Your task to perform on an android device: Go to notification settings Image 0: 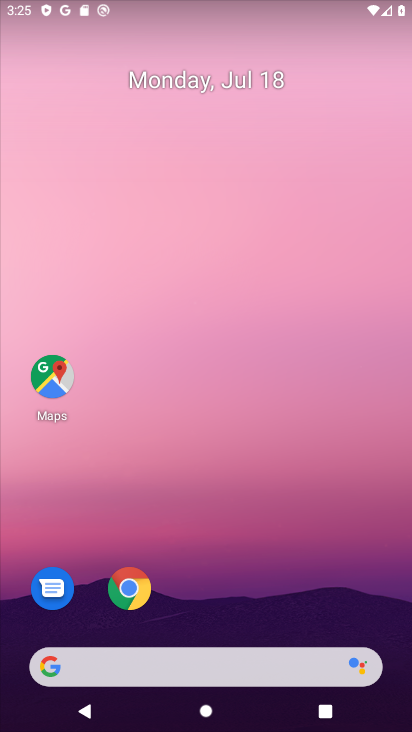
Step 0: drag from (218, 615) to (249, 5)
Your task to perform on an android device: Go to notification settings Image 1: 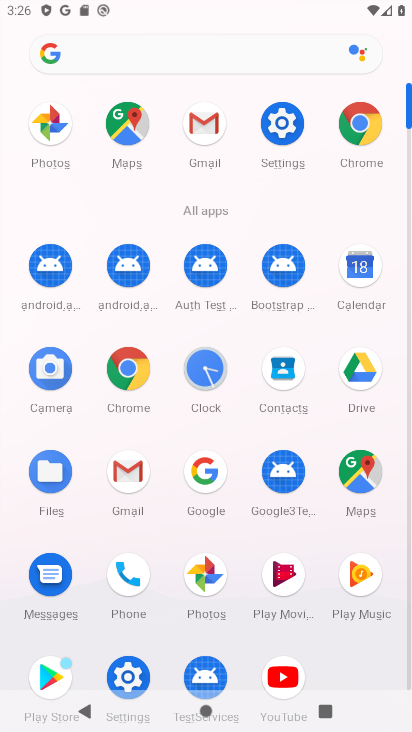
Step 1: click (280, 122)
Your task to perform on an android device: Go to notification settings Image 2: 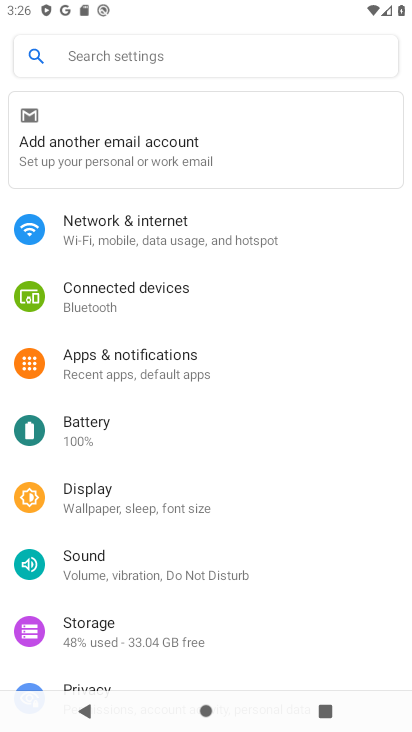
Step 2: click (208, 363)
Your task to perform on an android device: Go to notification settings Image 3: 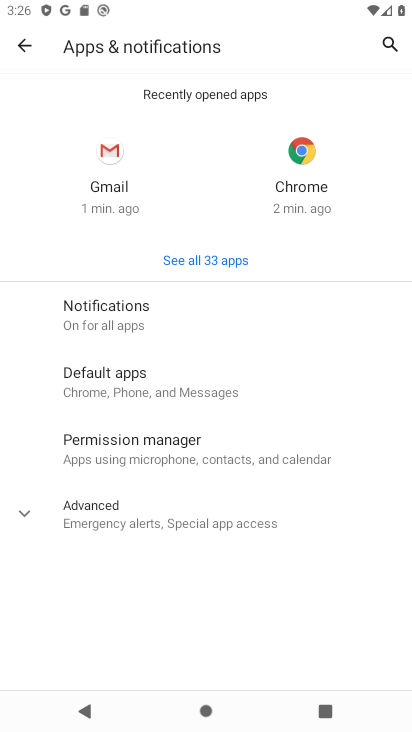
Step 3: click (172, 308)
Your task to perform on an android device: Go to notification settings Image 4: 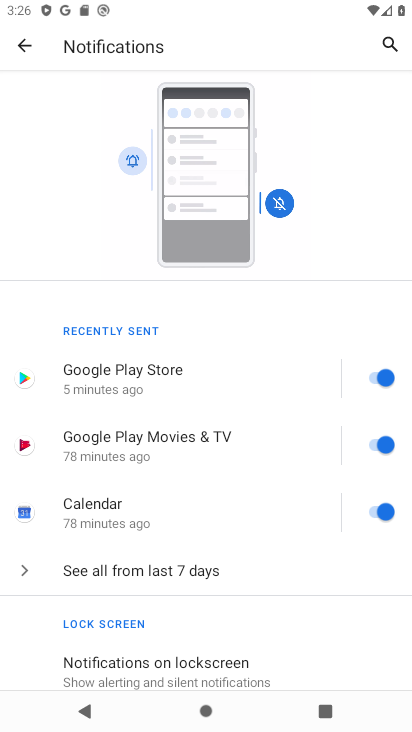
Step 4: drag from (191, 626) to (185, 209)
Your task to perform on an android device: Go to notification settings Image 5: 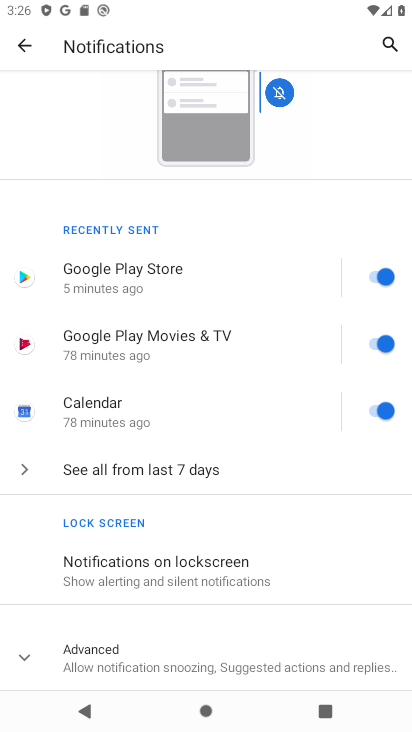
Step 5: click (25, 653)
Your task to perform on an android device: Go to notification settings Image 6: 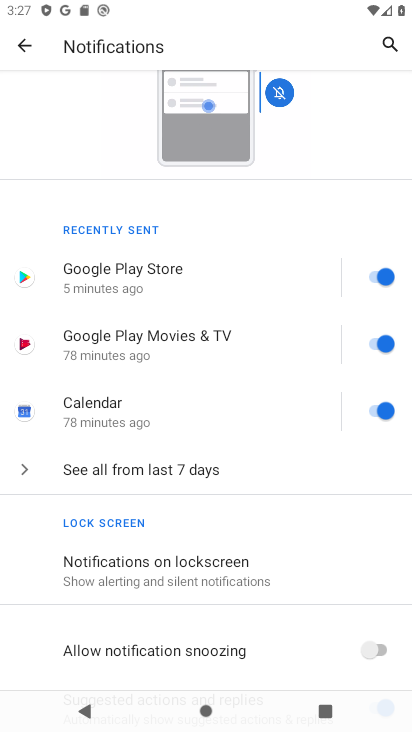
Step 6: task complete